Your task to perform on an android device: Search for 24"x36" picture frame on Home Depot. Image 0: 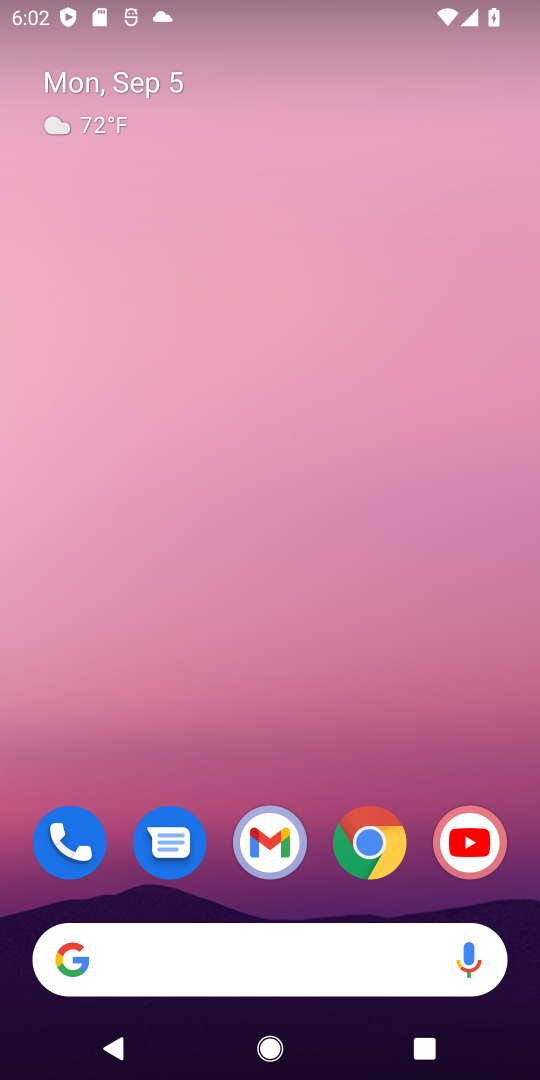
Step 0: click (370, 842)
Your task to perform on an android device: Search for 24"x36" picture frame on Home Depot. Image 1: 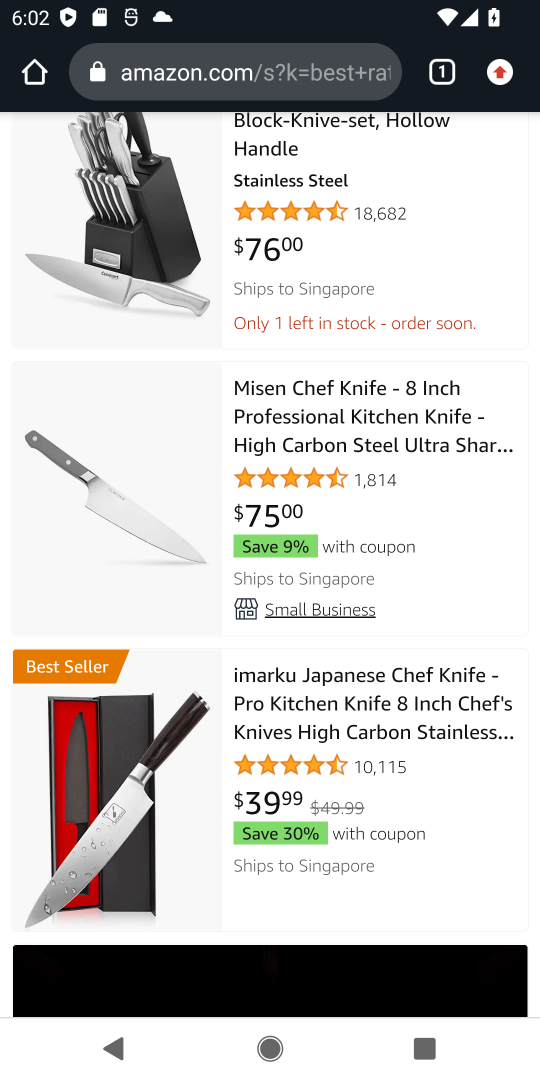
Step 1: click (345, 71)
Your task to perform on an android device: Search for 24"x36" picture frame on Home Depot. Image 2: 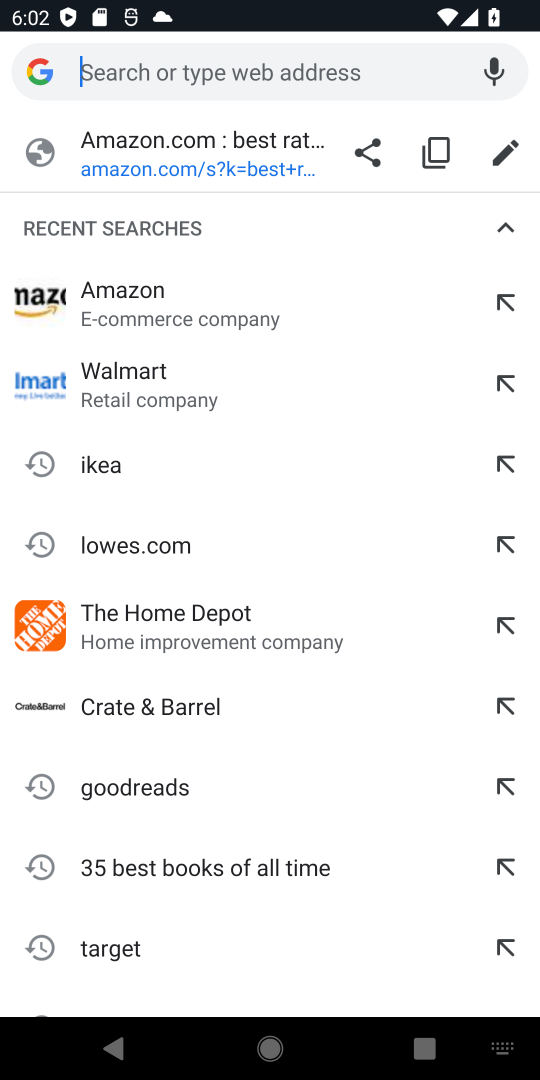
Step 2: type "Home Depot"
Your task to perform on an android device: Search for 24"x36" picture frame on Home Depot. Image 3: 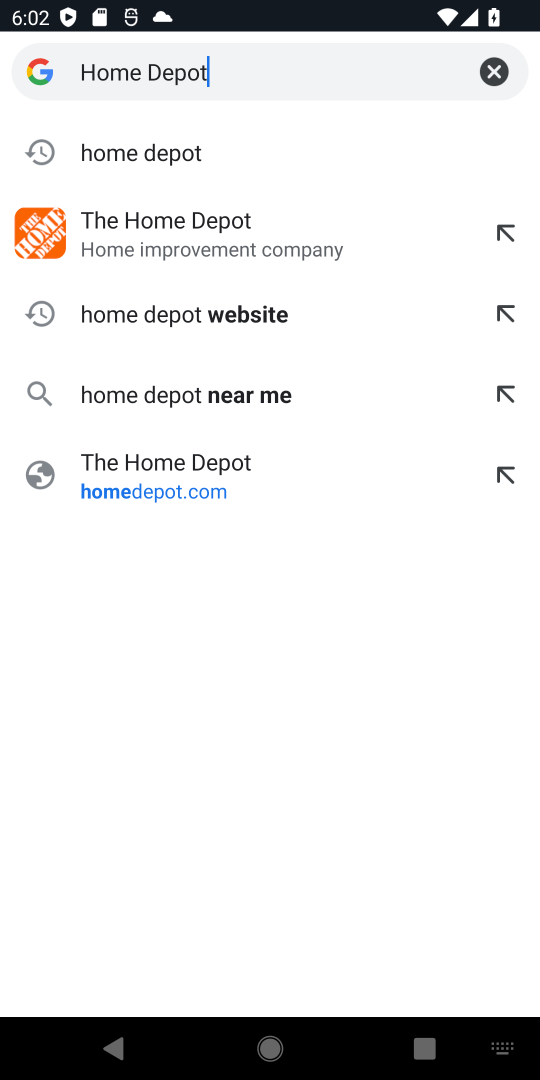
Step 3: click (163, 157)
Your task to perform on an android device: Search for 24"x36" picture frame on Home Depot. Image 4: 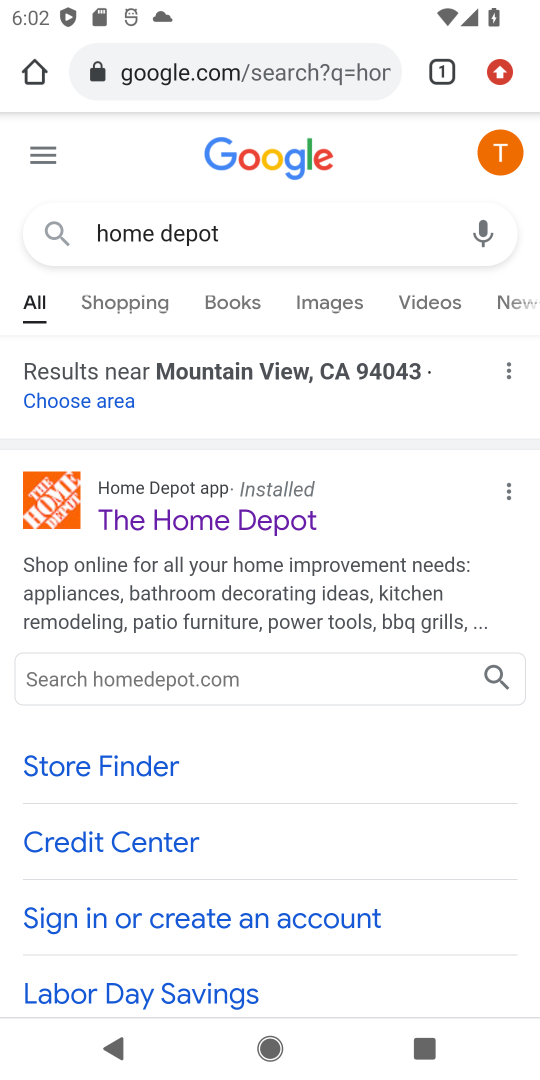
Step 4: click (201, 522)
Your task to perform on an android device: Search for 24"x36" picture frame on Home Depot. Image 5: 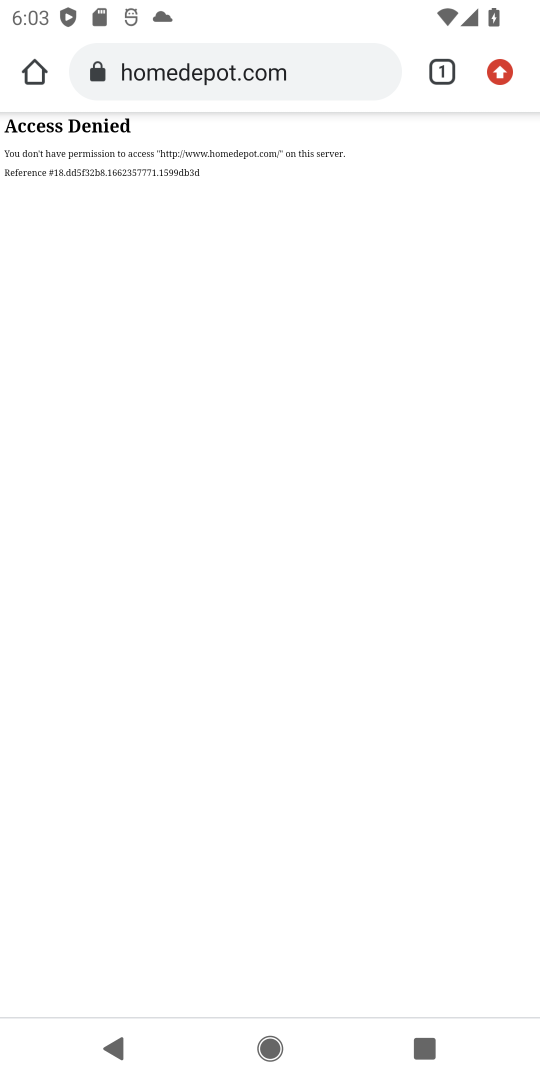
Step 5: task complete